Your task to perform on an android device: Do I have any events today? Image 0: 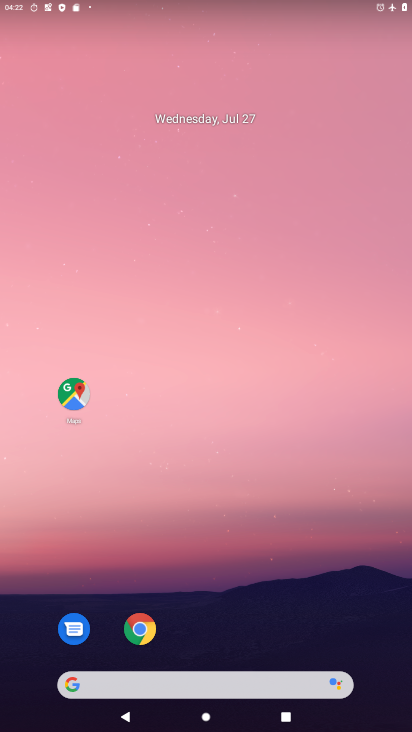
Step 0: drag from (327, 586) to (300, 34)
Your task to perform on an android device: Do I have any events today? Image 1: 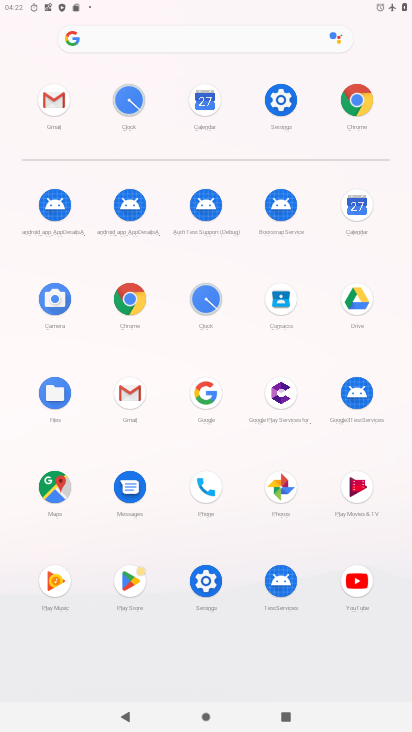
Step 1: click (353, 207)
Your task to perform on an android device: Do I have any events today? Image 2: 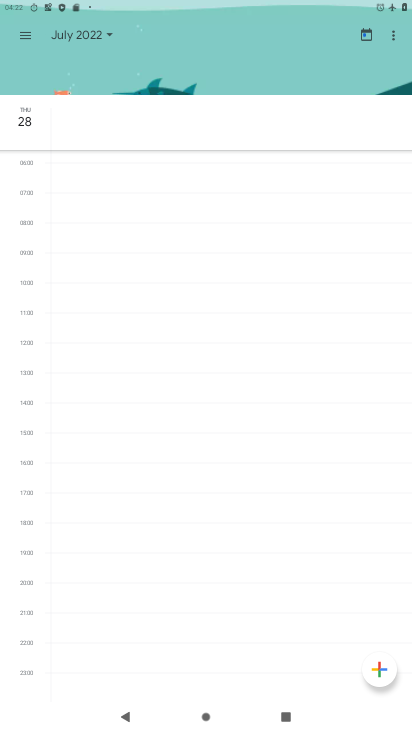
Step 2: task complete